Your task to perform on an android device: check data usage Image 0: 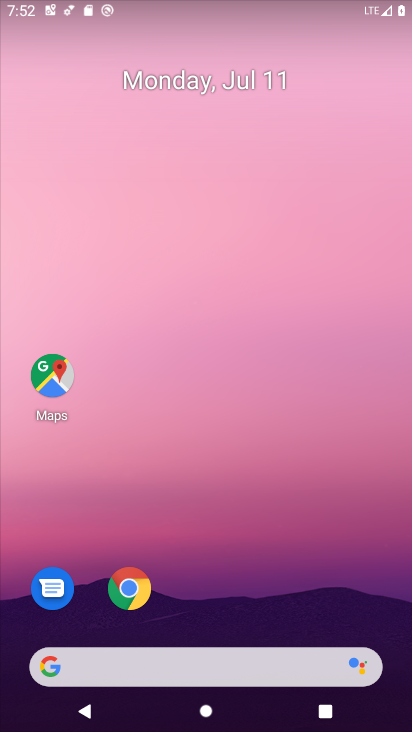
Step 0: drag from (373, 629) to (133, 53)
Your task to perform on an android device: check data usage Image 1: 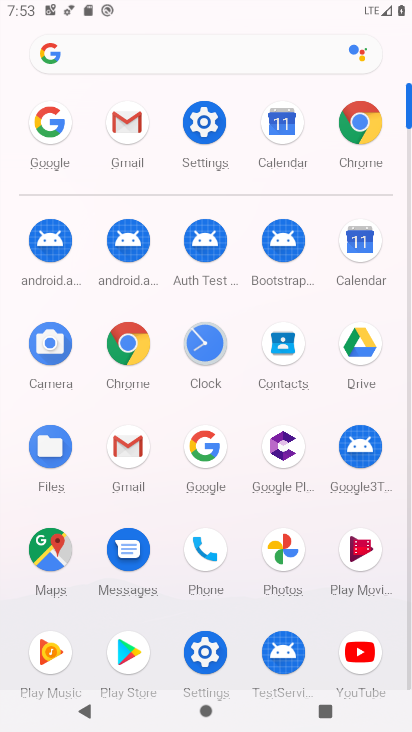
Step 1: click (208, 122)
Your task to perform on an android device: check data usage Image 2: 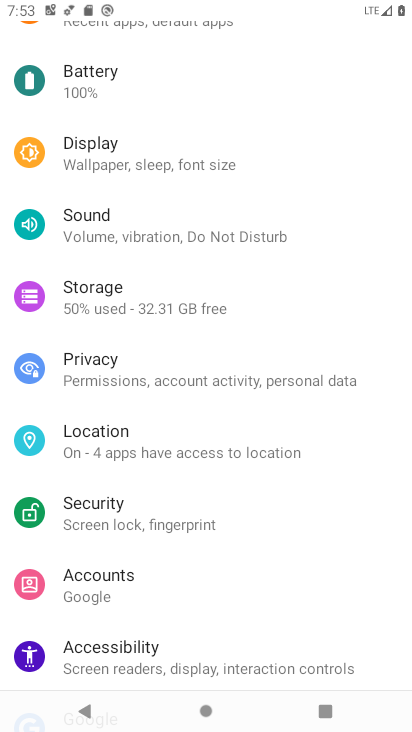
Step 2: drag from (178, 114) to (176, 211)
Your task to perform on an android device: check data usage Image 3: 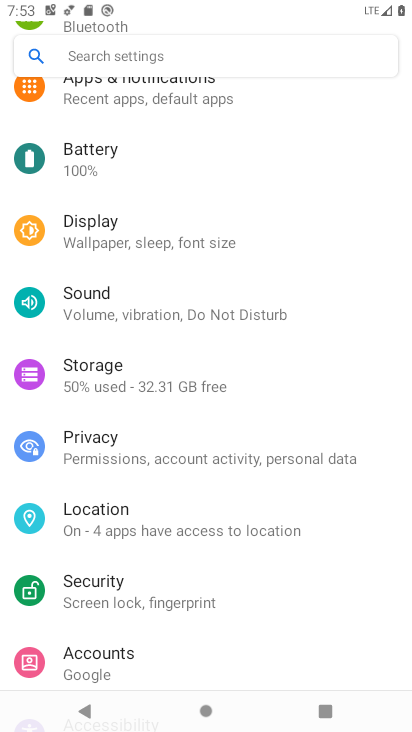
Step 3: drag from (176, 164) to (175, 475)
Your task to perform on an android device: check data usage Image 4: 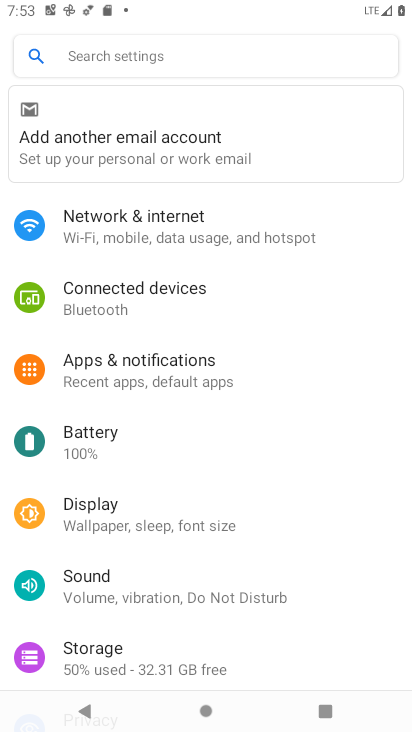
Step 4: click (175, 235)
Your task to perform on an android device: check data usage Image 5: 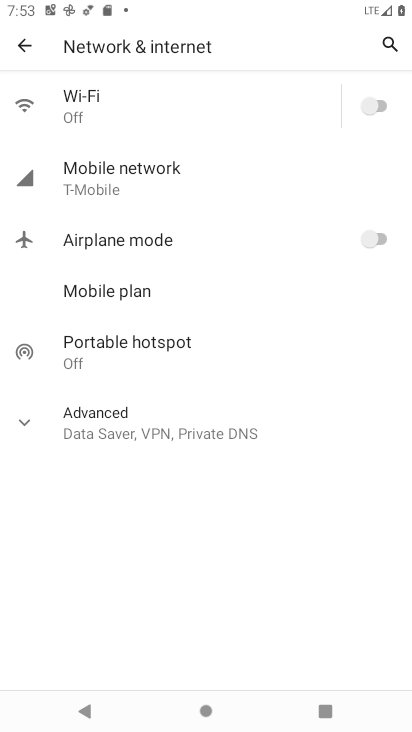
Step 5: click (131, 193)
Your task to perform on an android device: check data usage Image 6: 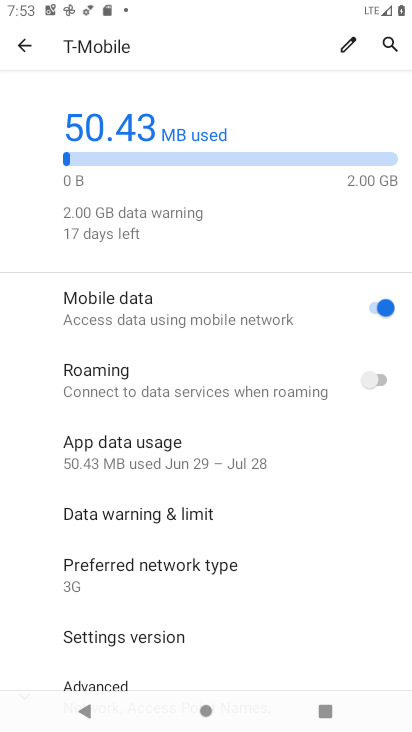
Step 6: drag from (137, 588) to (124, 402)
Your task to perform on an android device: check data usage Image 7: 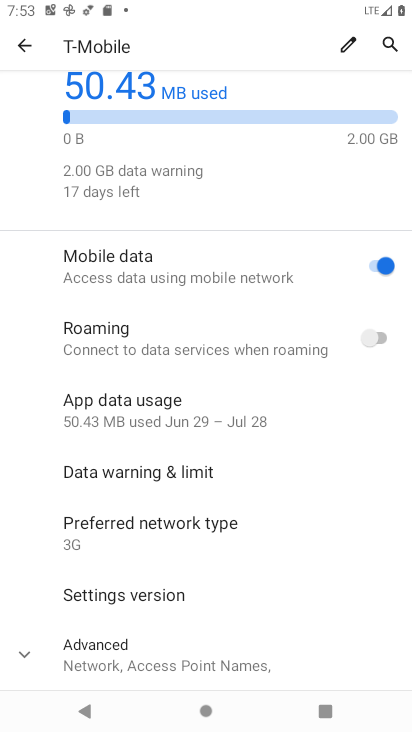
Step 7: click (210, 420)
Your task to perform on an android device: check data usage Image 8: 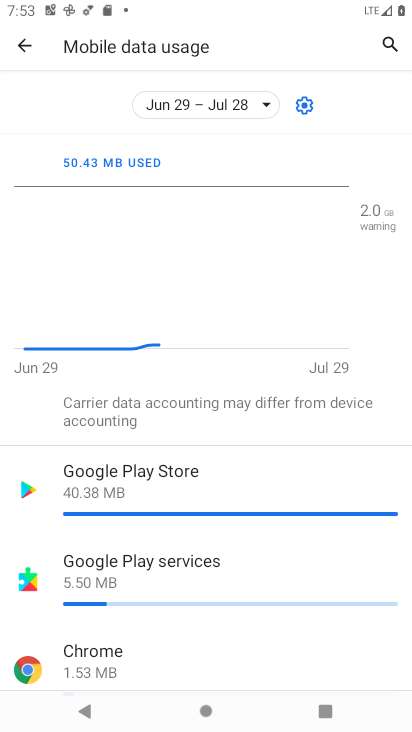
Step 8: task complete